Your task to perform on an android device: find snoozed emails in the gmail app Image 0: 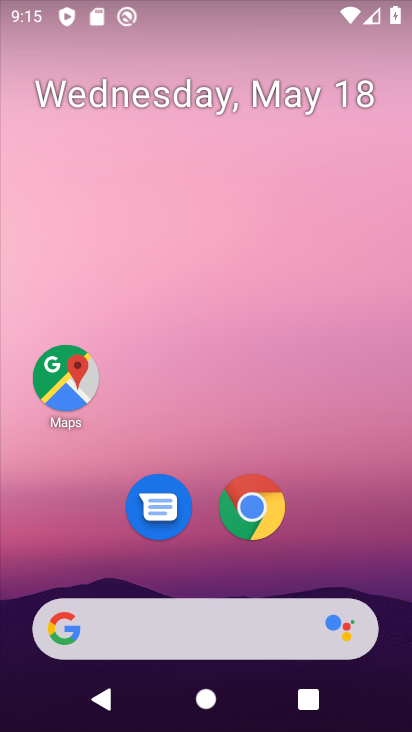
Step 0: drag from (360, 517) to (316, 127)
Your task to perform on an android device: find snoozed emails in the gmail app Image 1: 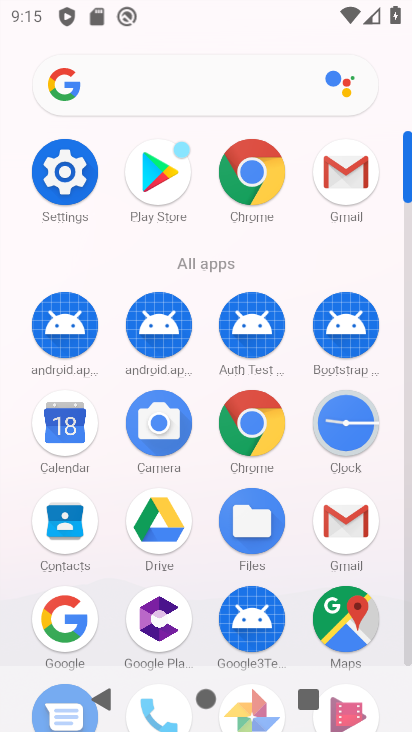
Step 1: click (345, 177)
Your task to perform on an android device: find snoozed emails in the gmail app Image 2: 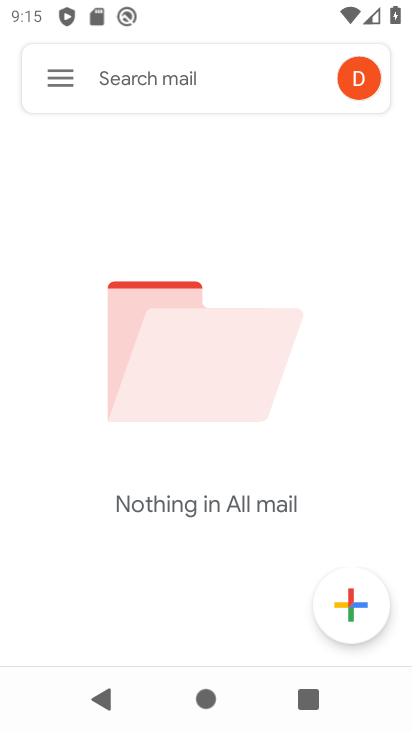
Step 2: click (67, 67)
Your task to perform on an android device: find snoozed emails in the gmail app Image 3: 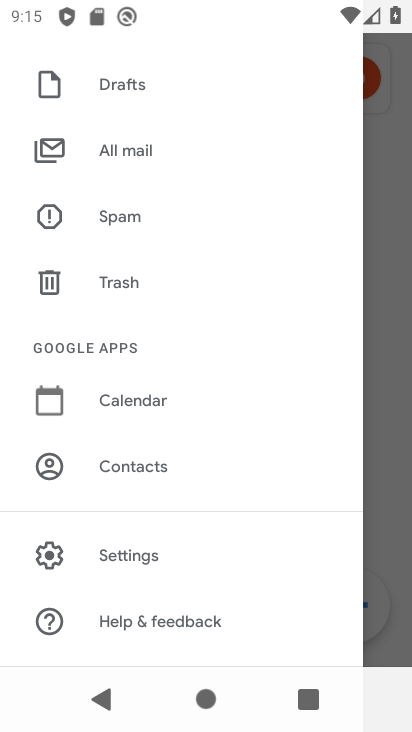
Step 3: drag from (243, 149) to (179, 637)
Your task to perform on an android device: find snoozed emails in the gmail app Image 4: 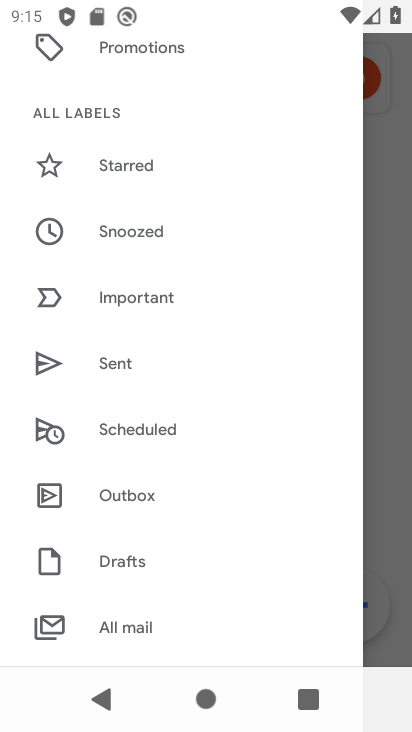
Step 4: drag from (199, 164) to (247, 619)
Your task to perform on an android device: find snoozed emails in the gmail app Image 5: 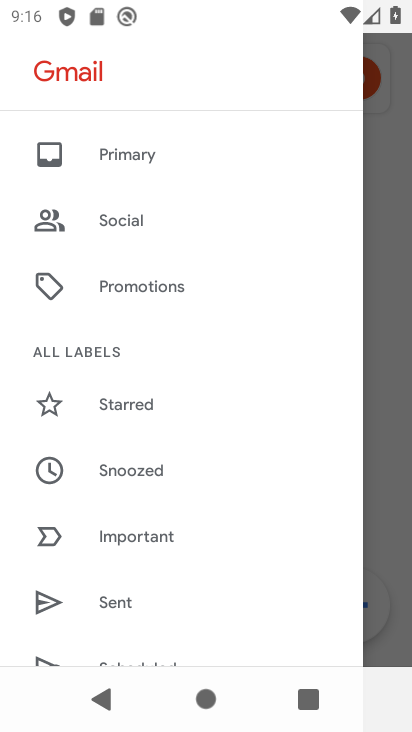
Step 5: drag from (226, 245) to (204, 639)
Your task to perform on an android device: find snoozed emails in the gmail app Image 6: 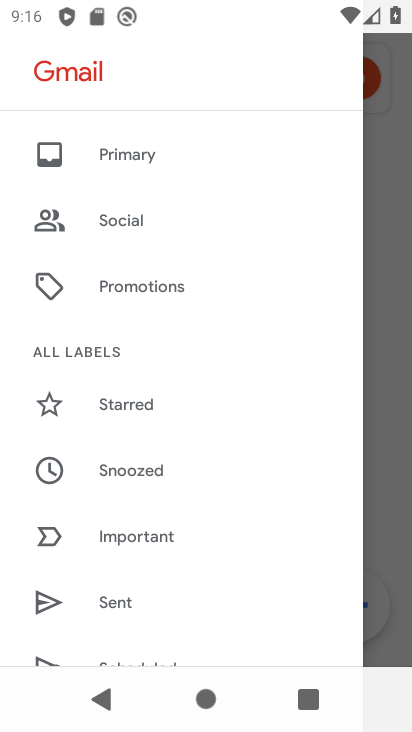
Step 6: drag from (225, 233) to (123, 623)
Your task to perform on an android device: find snoozed emails in the gmail app Image 7: 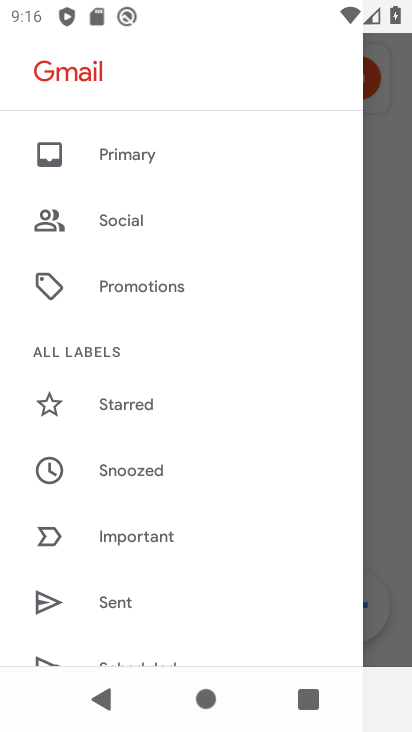
Step 7: drag from (108, 224) to (116, 621)
Your task to perform on an android device: find snoozed emails in the gmail app Image 8: 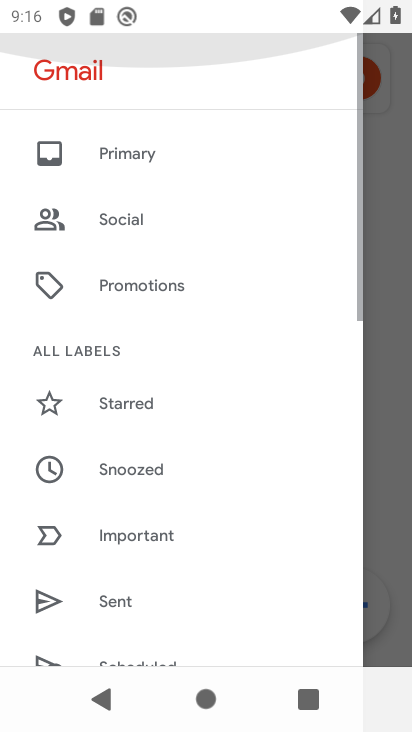
Step 8: drag from (111, 551) to (223, 198)
Your task to perform on an android device: find snoozed emails in the gmail app Image 9: 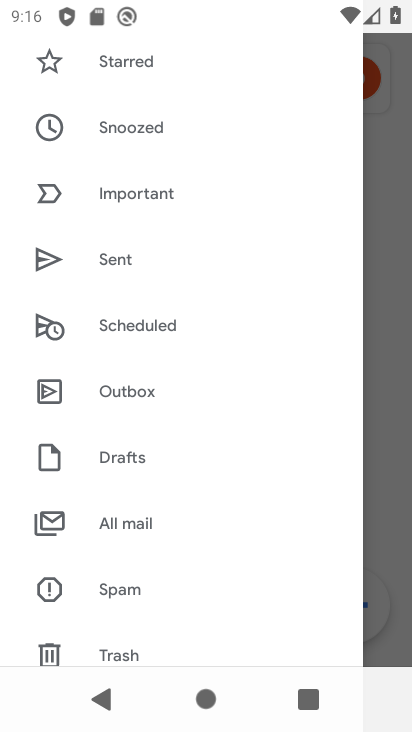
Step 9: click (130, 167)
Your task to perform on an android device: find snoozed emails in the gmail app Image 10: 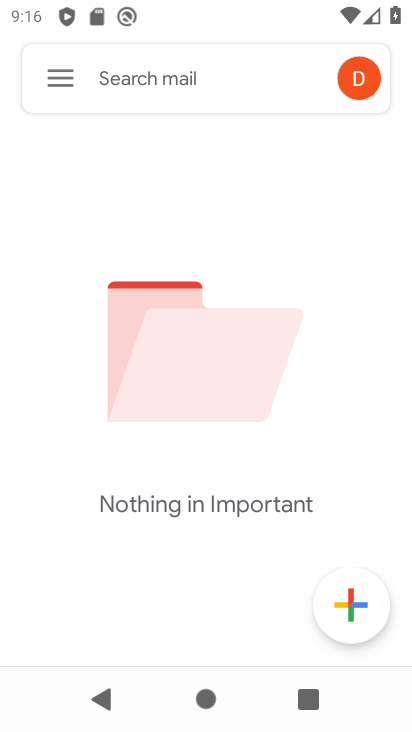
Step 10: click (43, 73)
Your task to perform on an android device: find snoozed emails in the gmail app Image 11: 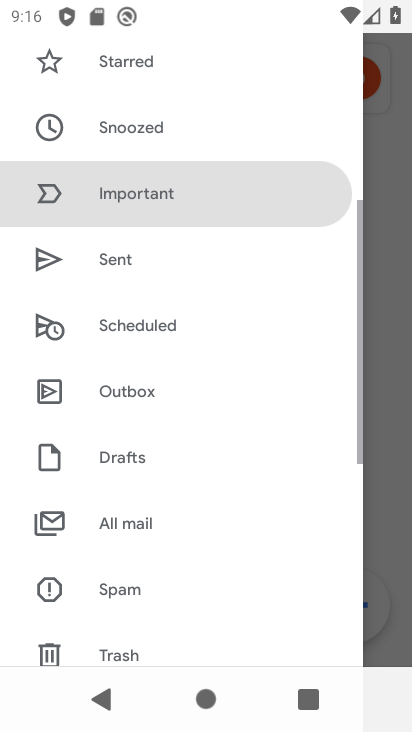
Step 11: click (121, 127)
Your task to perform on an android device: find snoozed emails in the gmail app Image 12: 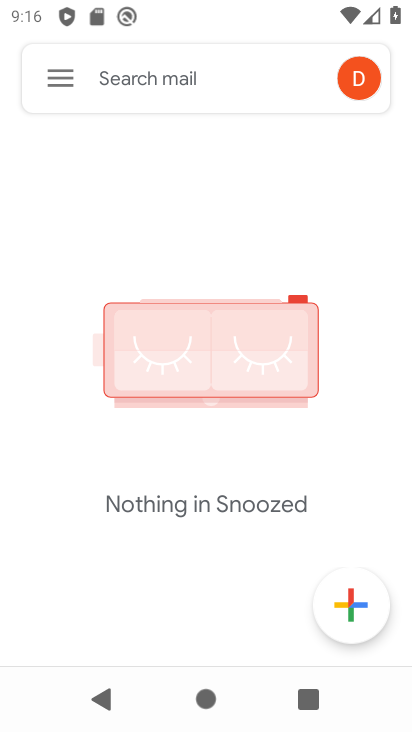
Step 12: task complete